Your task to perform on an android device: Add "macbook pro 13 inch" to the cart on walmart.com Image 0: 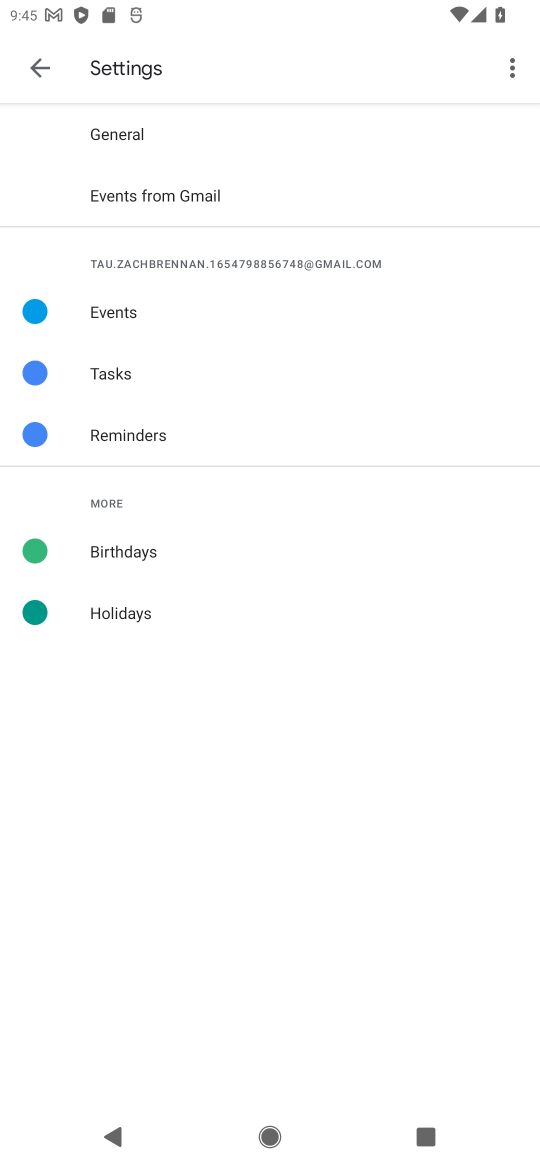
Step 0: press home button
Your task to perform on an android device: Add "macbook pro 13 inch" to the cart on walmart.com Image 1: 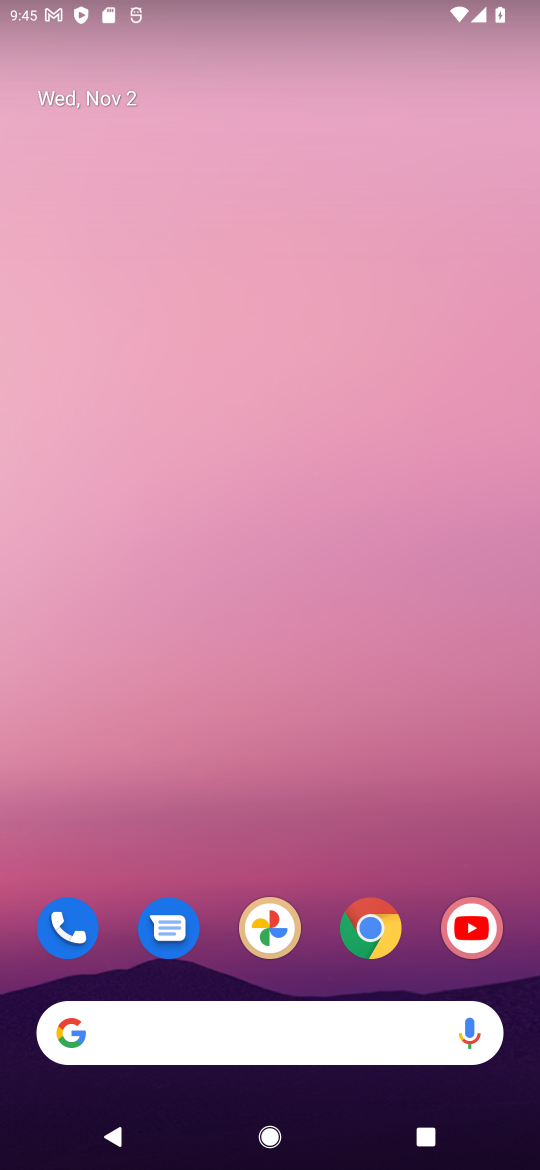
Step 1: drag from (277, 1031) to (333, 447)
Your task to perform on an android device: Add "macbook pro 13 inch" to the cart on walmart.com Image 2: 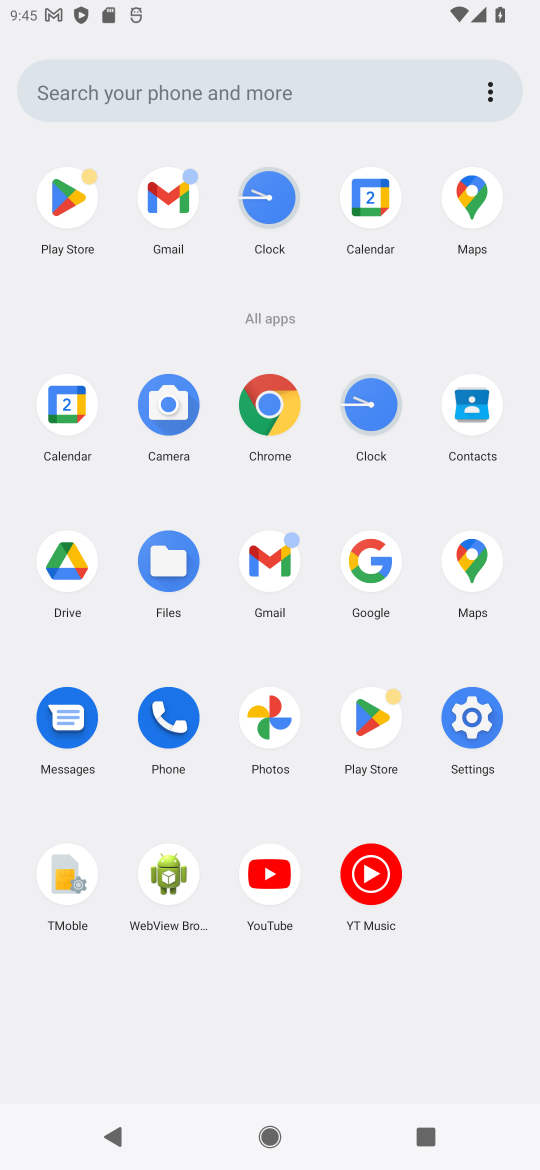
Step 2: click (388, 581)
Your task to perform on an android device: Add "macbook pro 13 inch" to the cart on walmart.com Image 3: 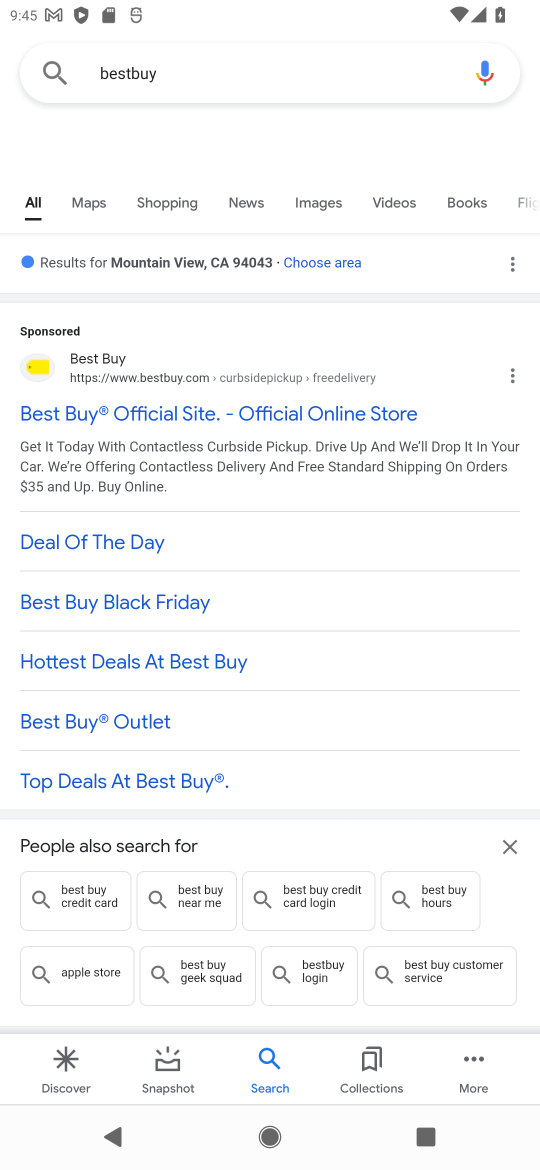
Step 3: click (176, 71)
Your task to perform on an android device: Add "macbook pro 13 inch" to the cart on walmart.com Image 4: 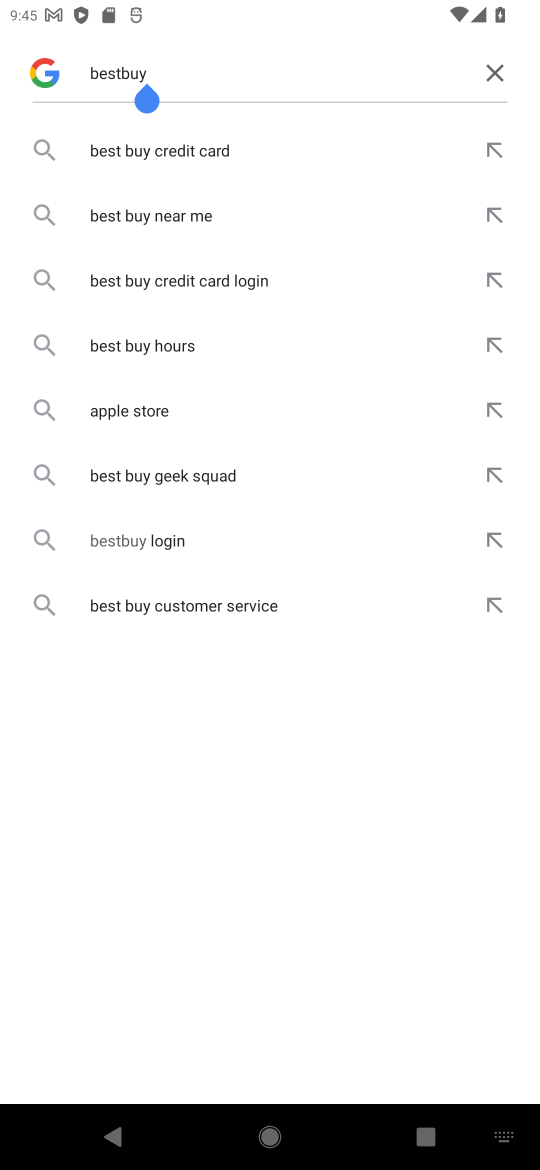
Step 4: click (497, 78)
Your task to perform on an android device: Add "macbook pro 13 inch" to the cart on walmart.com Image 5: 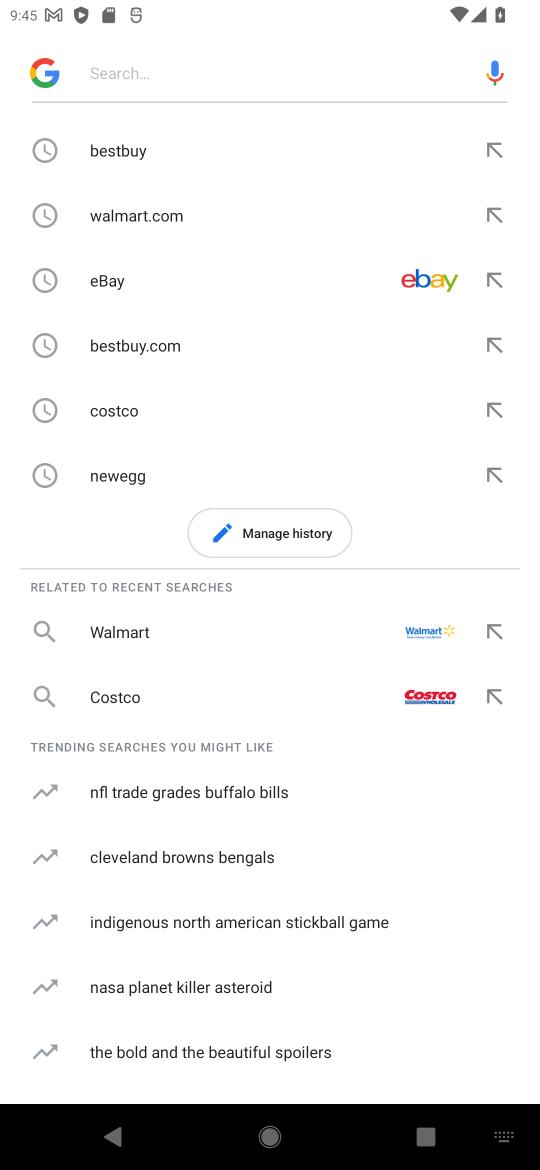
Step 5: click (125, 214)
Your task to perform on an android device: Add "macbook pro 13 inch" to the cart on walmart.com Image 6: 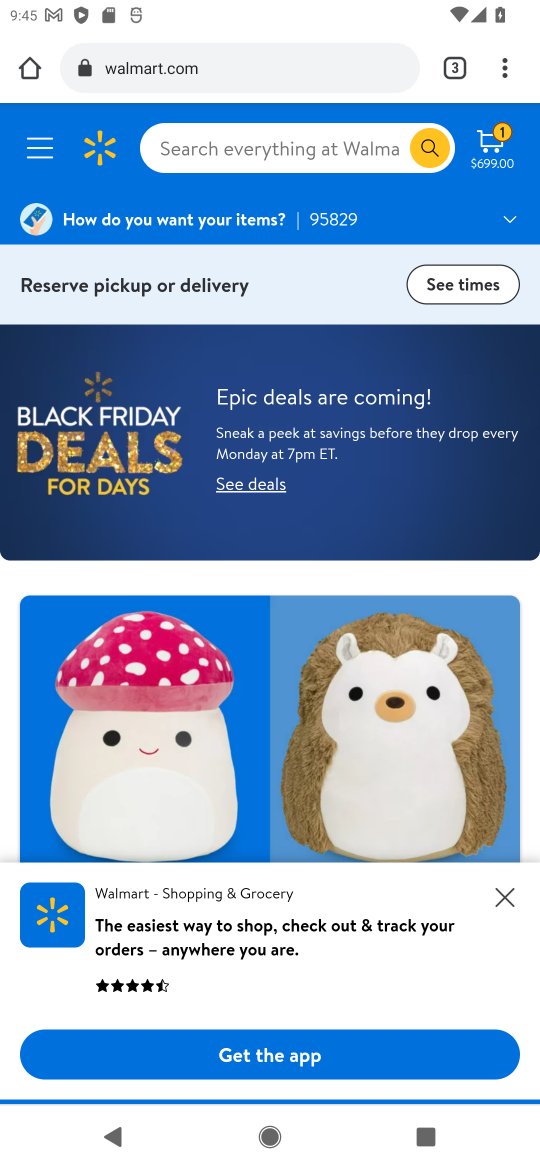
Step 6: click (315, 133)
Your task to perform on an android device: Add "macbook pro 13 inch" to the cart on walmart.com Image 7: 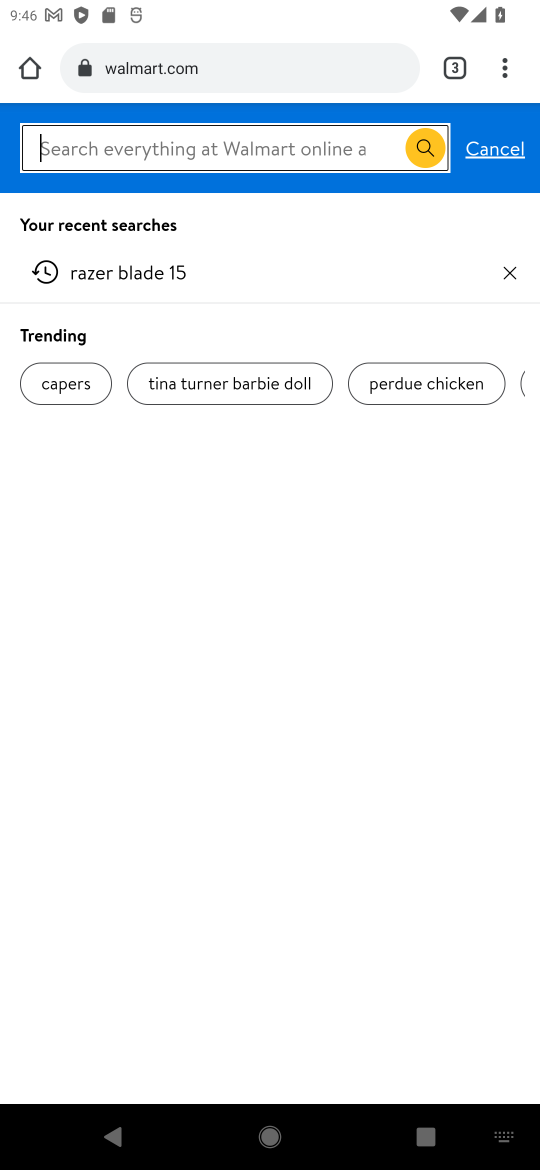
Step 7: type "macbook pro 13 inch"
Your task to perform on an android device: Add "macbook pro 13 inch" to the cart on walmart.com Image 8: 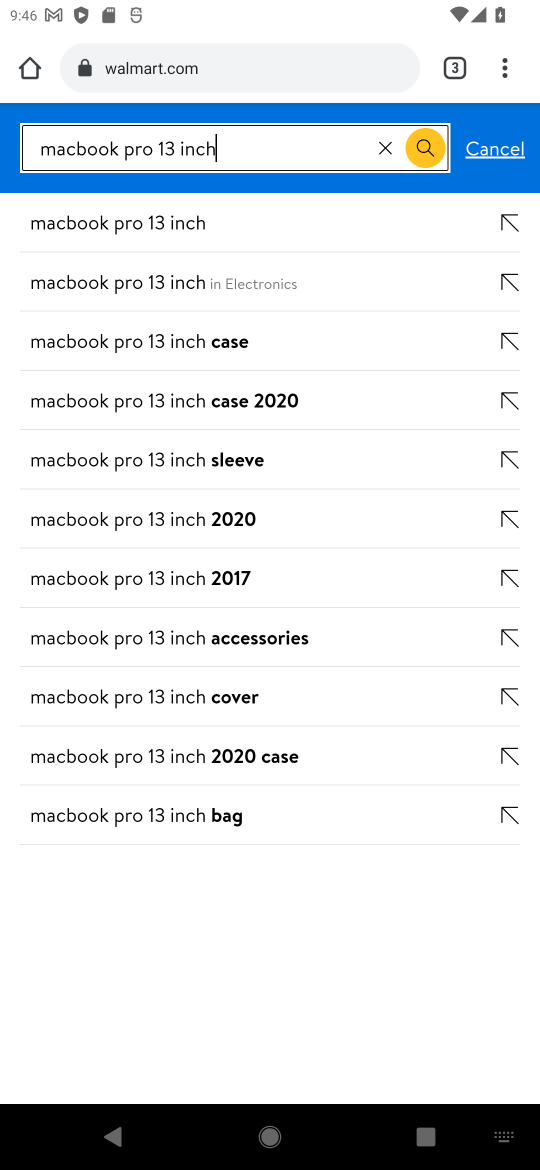
Step 8: click (99, 218)
Your task to perform on an android device: Add "macbook pro 13 inch" to the cart on walmart.com Image 9: 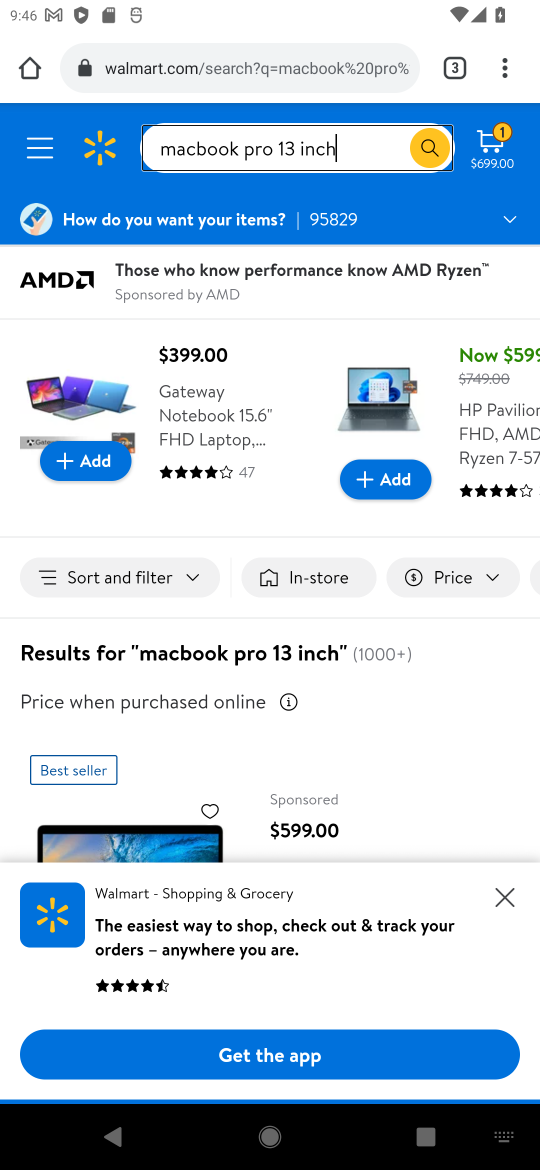
Step 9: drag from (202, 807) to (304, 413)
Your task to perform on an android device: Add "macbook pro 13 inch" to the cart on walmart.com Image 10: 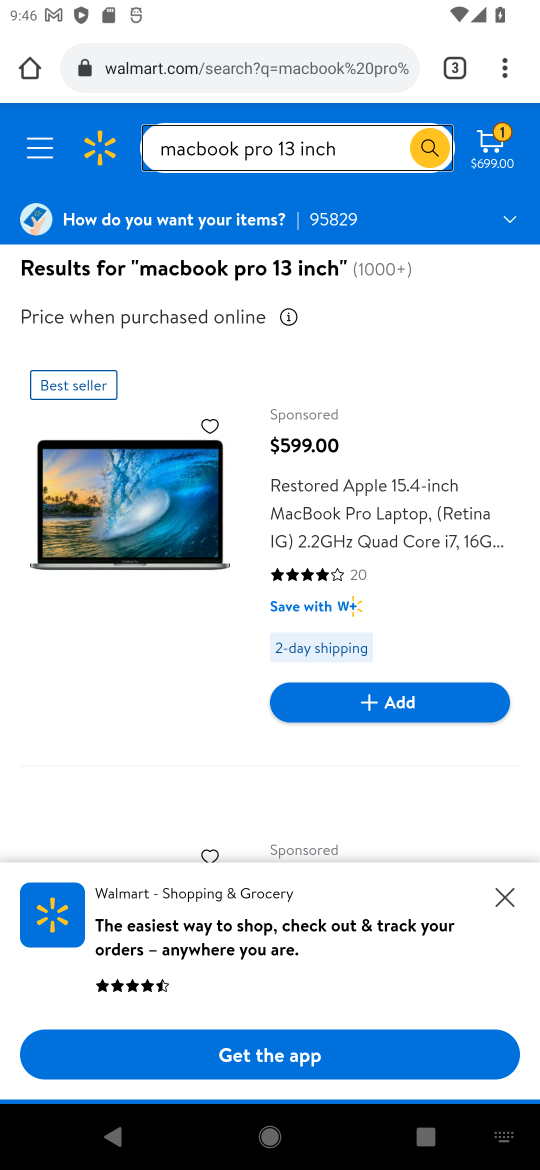
Step 10: click (274, 726)
Your task to perform on an android device: Add "macbook pro 13 inch" to the cart on walmart.com Image 11: 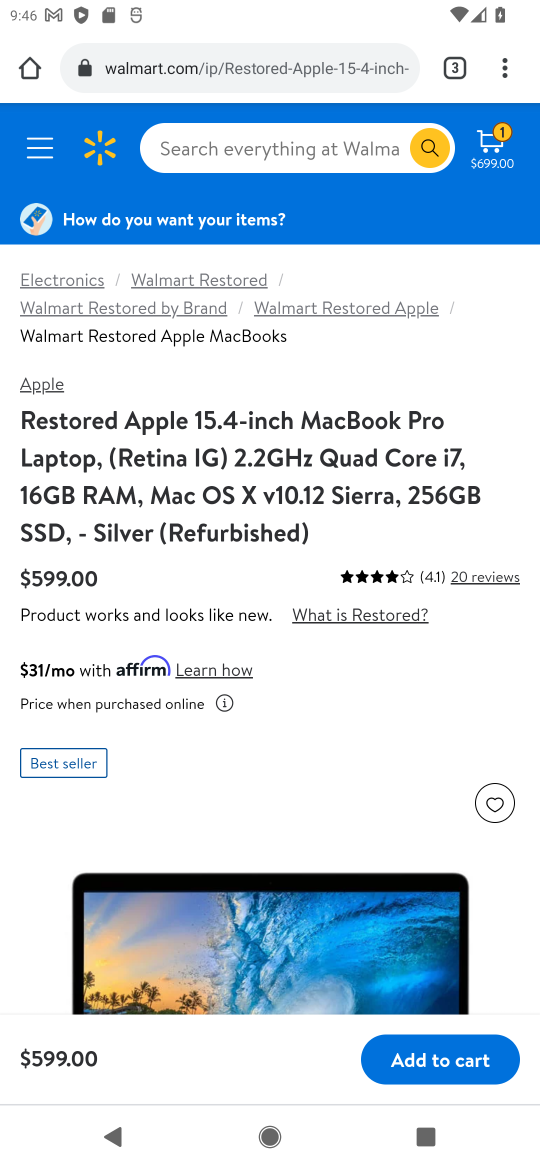
Step 11: drag from (343, 744) to (338, 508)
Your task to perform on an android device: Add "macbook pro 13 inch" to the cart on walmart.com Image 12: 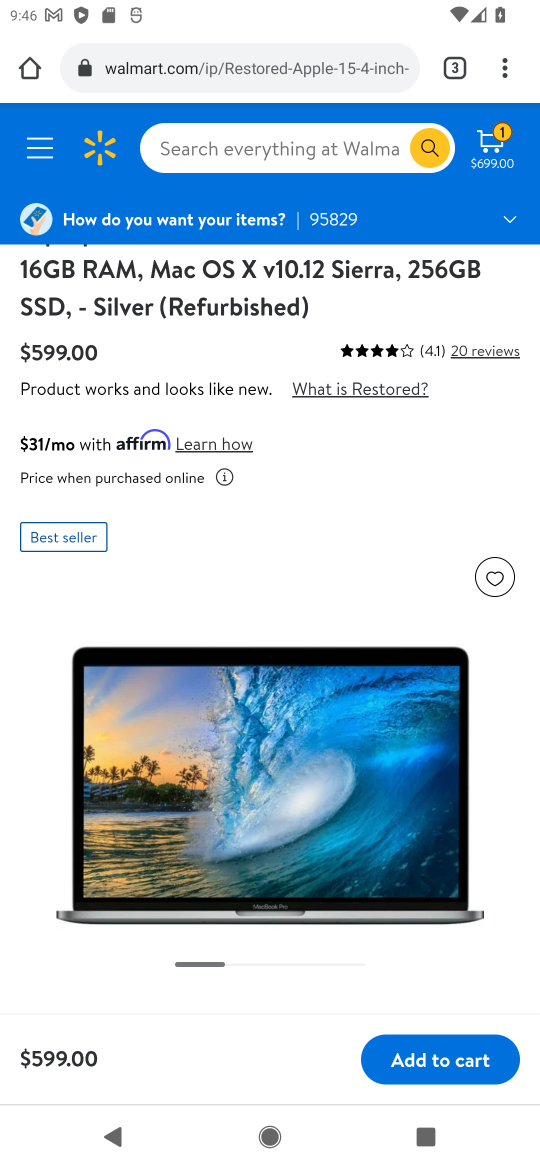
Step 12: click (478, 1067)
Your task to perform on an android device: Add "macbook pro 13 inch" to the cart on walmart.com Image 13: 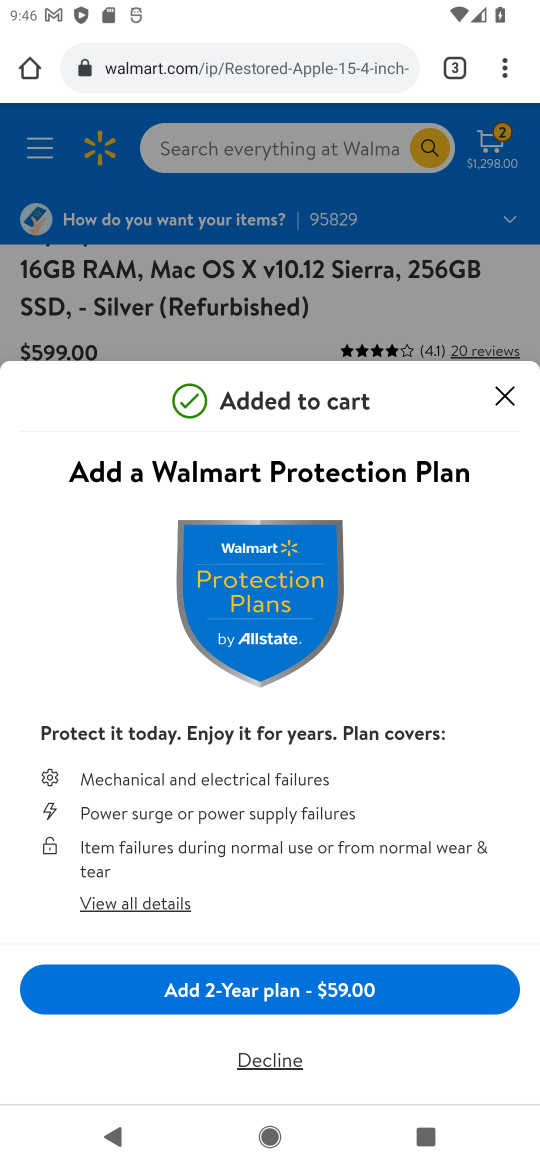
Step 13: task complete